Your task to perform on an android device: Open the Play Movies app and select the watchlist tab. Image 0: 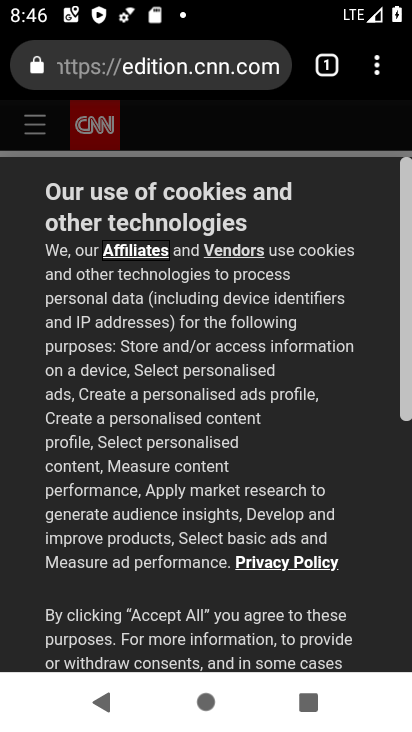
Step 0: press home button
Your task to perform on an android device: Open the Play Movies app and select the watchlist tab. Image 1: 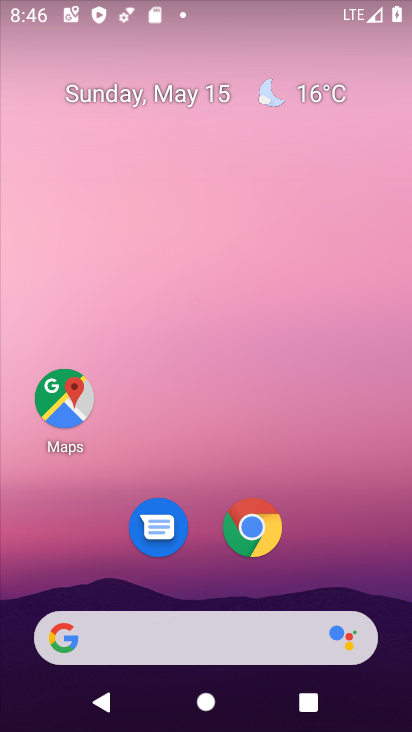
Step 1: drag from (349, 575) to (400, 10)
Your task to perform on an android device: Open the Play Movies app and select the watchlist tab. Image 2: 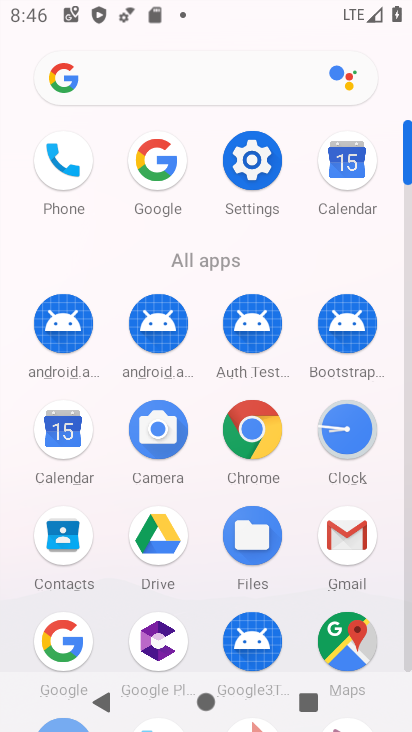
Step 2: drag from (409, 584) to (402, 497)
Your task to perform on an android device: Open the Play Movies app and select the watchlist tab. Image 3: 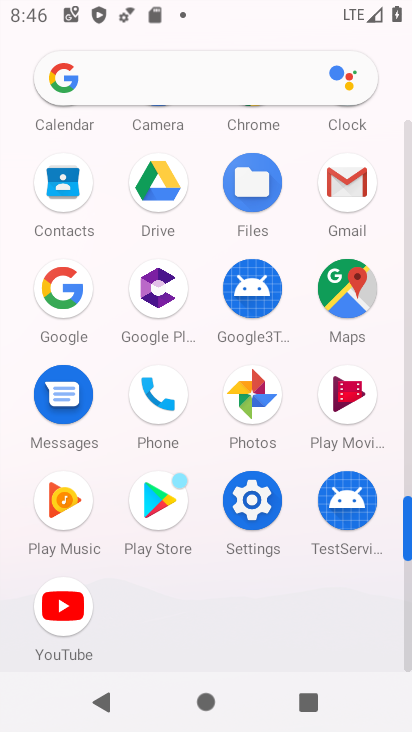
Step 3: click (353, 403)
Your task to perform on an android device: Open the Play Movies app and select the watchlist tab. Image 4: 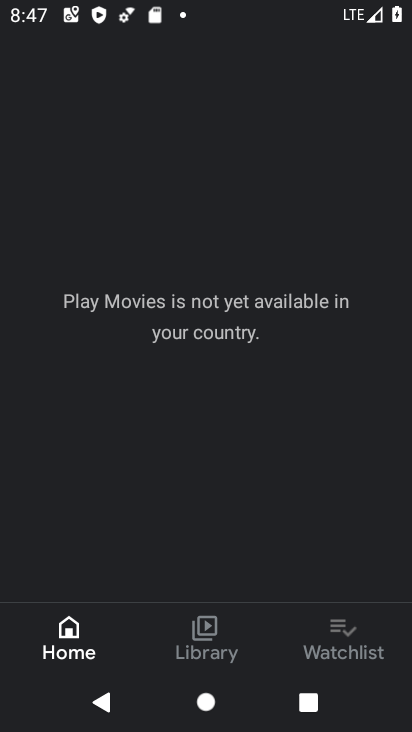
Step 4: click (337, 633)
Your task to perform on an android device: Open the Play Movies app and select the watchlist tab. Image 5: 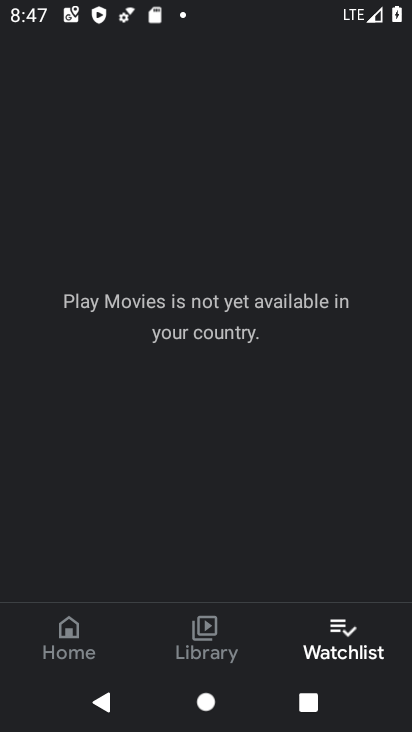
Step 5: task complete